Your task to perform on an android device: Open Yahoo.com Image 0: 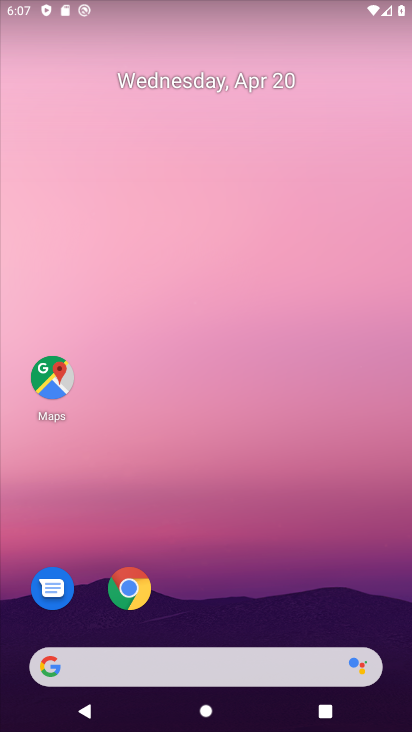
Step 0: drag from (267, 568) to (225, 48)
Your task to perform on an android device: Open Yahoo.com Image 1: 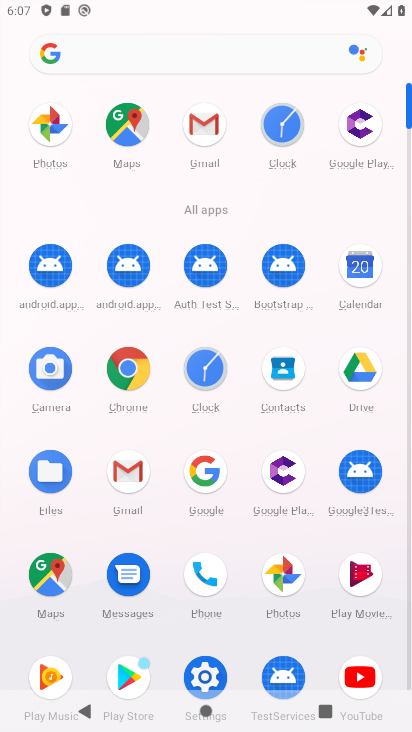
Step 1: click (123, 365)
Your task to perform on an android device: Open Yahoo.com Image 2: 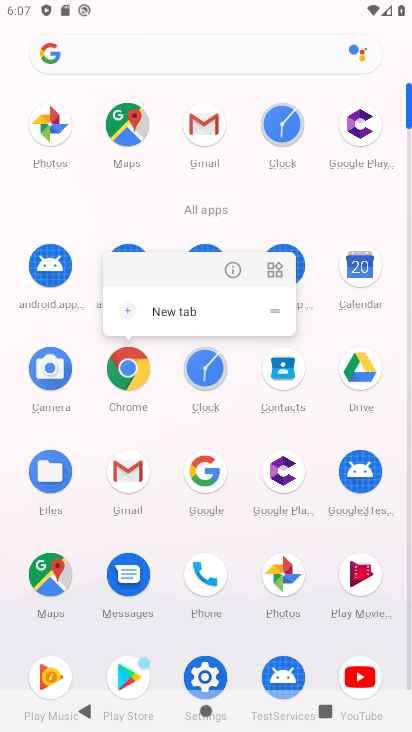
Step 2: click (122, 379)
Your task to perform on an android device: Open Yahoo.com Image 3: 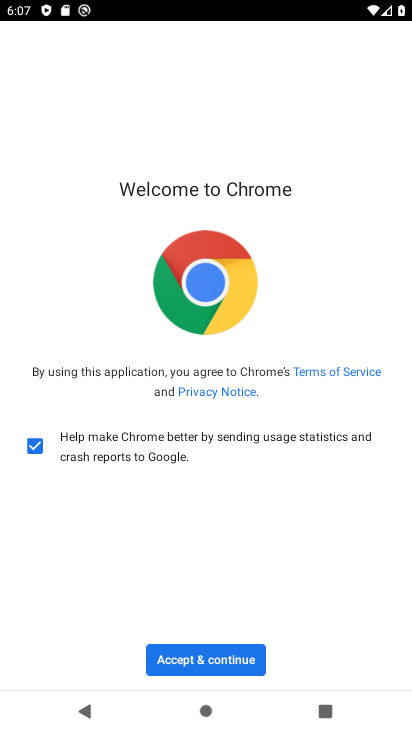
Step 3: click (187, 661)
Your task to perform on an android device: Open Yahoo.com Image 4: 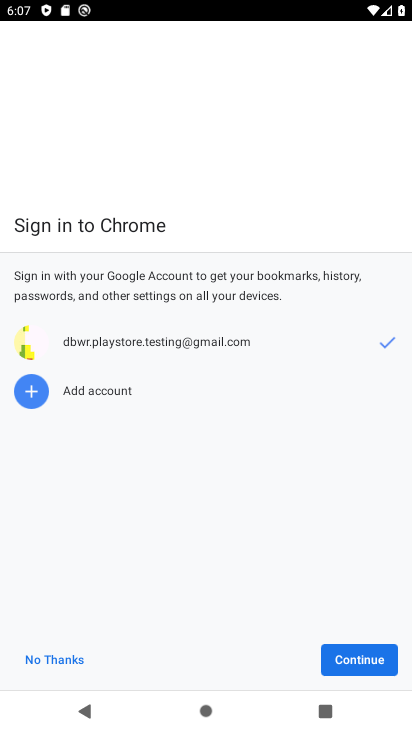
Step 4: click (367, 655)
Your task to perform on an android device: Open Yahoo.com Image 5: 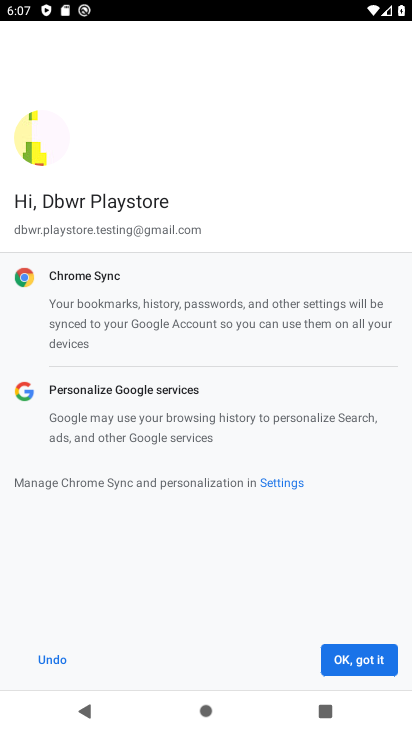
Step 5: click (367, 655)
Your task to perform on an android device: Open Yahoo.com Image 6: 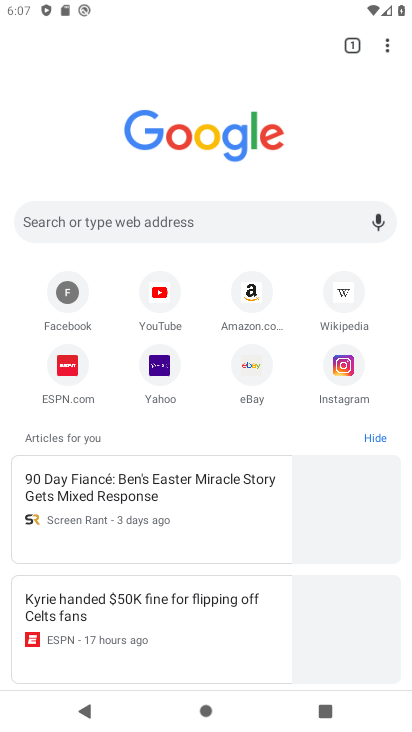
Step 6: click (59, 225)
Your task to perform on an android device: Open Yahoo.com Image 7: 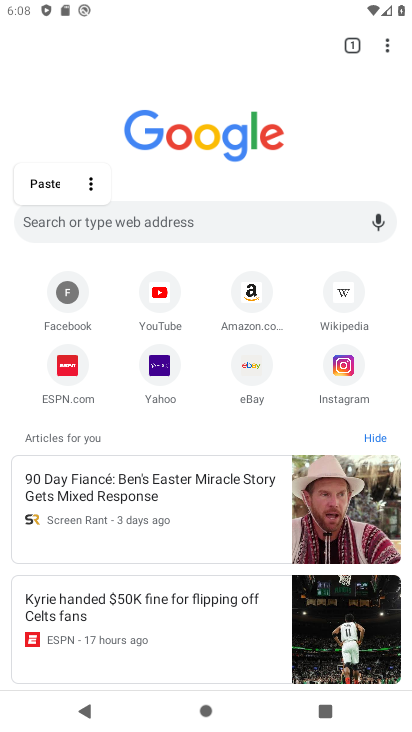
Step 7: type "Yahoo.com"
Your task to perform on an android device: Open Yahoo.com Image 8: 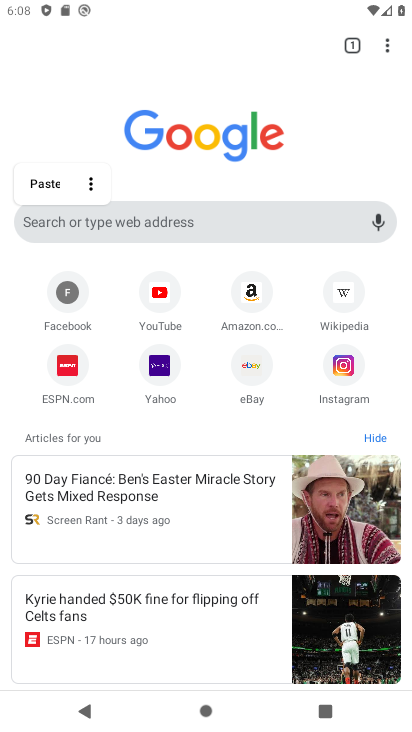
Step 8: click (162, 221)
Your task to perform on an android device: Open Yahoo.com Image 9: 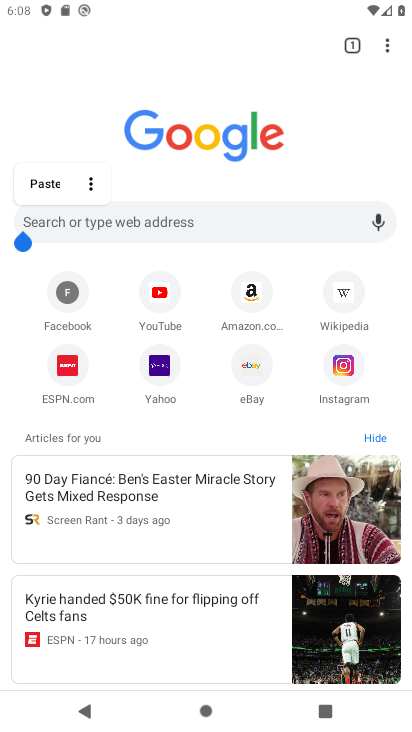
Step 9: click (244, 227)
Your task to perform on an android device: Open Yahoo.com Image 10: 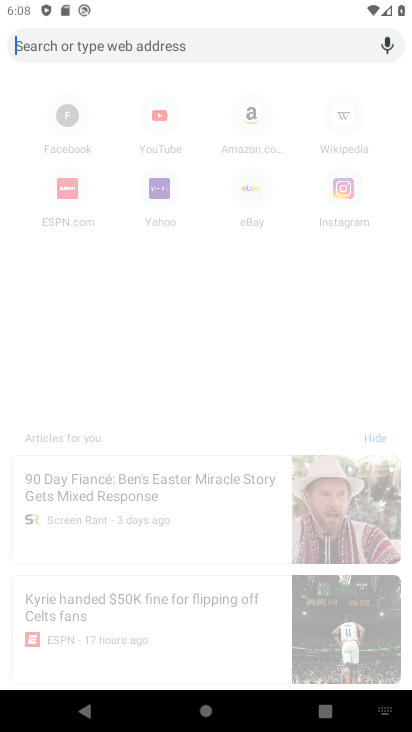
Step 10: type "Yahoo.com"
Your task to perform on an android device: Open Yahoo.com Image 11: 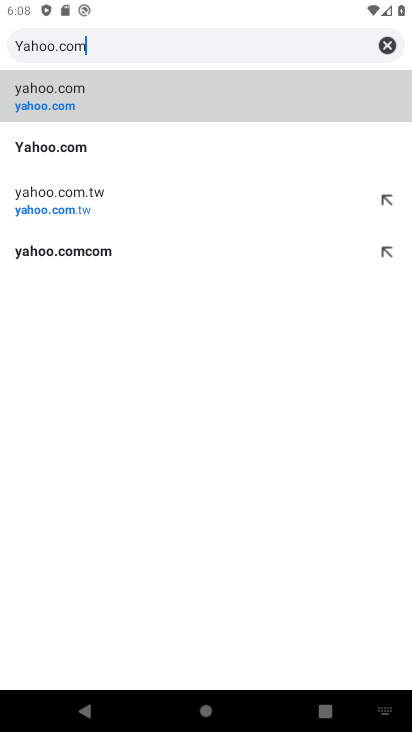
Step 11: click (32, 101)
Your task to perform on an android device: Open Yahoo.com Image 12: 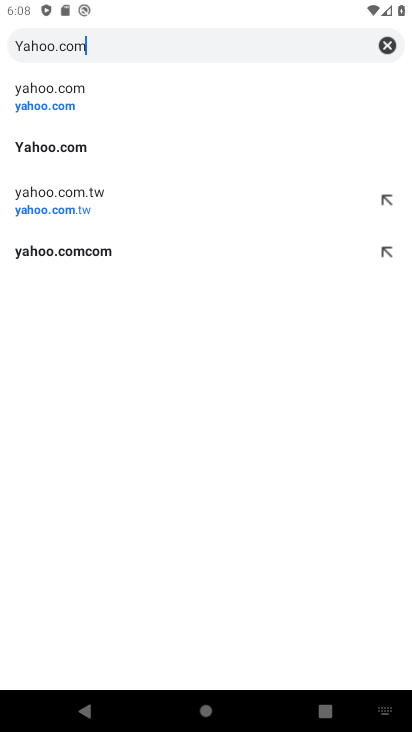
Step 12: click (34, 105)
Your task to perform on an android device: Open Yahoo.com Image 13: 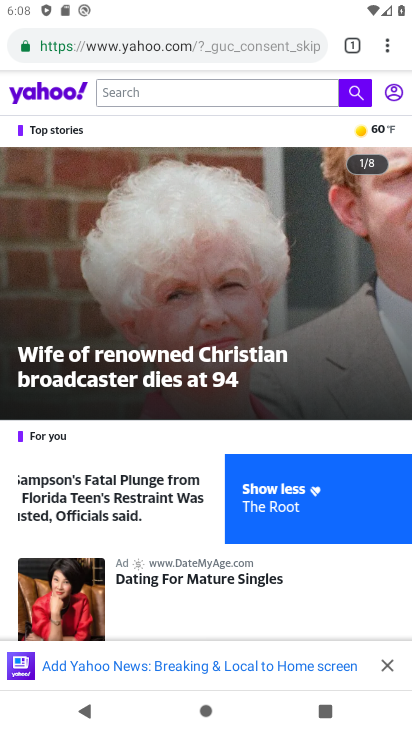
Step 13: task complete